Your task to perform on an android device: Clear the cart on ebay. Add macbook pro 13 inch to the cart on ebay Image 0: 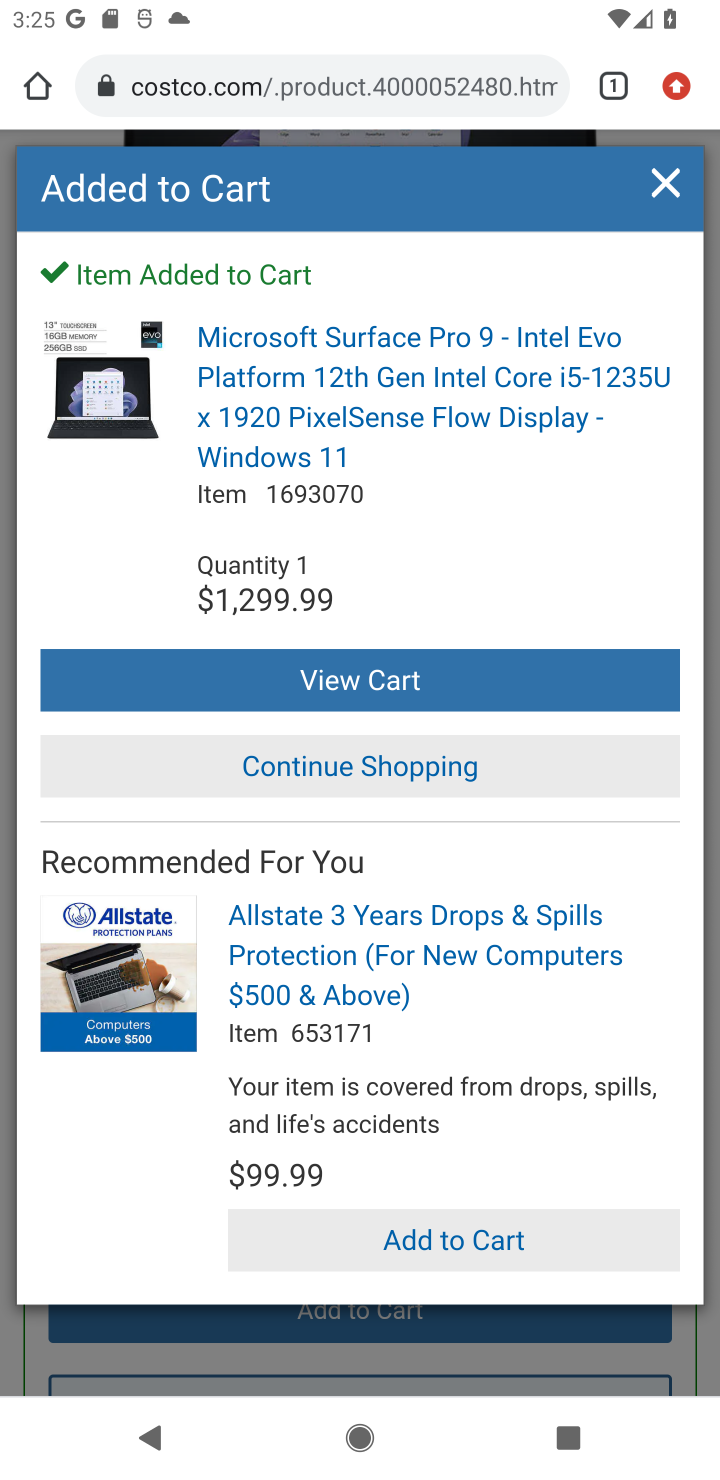
Step 0: press home button
Your task to perform on an android device: Clear the cart on ebay. Add macbook pro 13 inch to the cart on ebay Image 1: 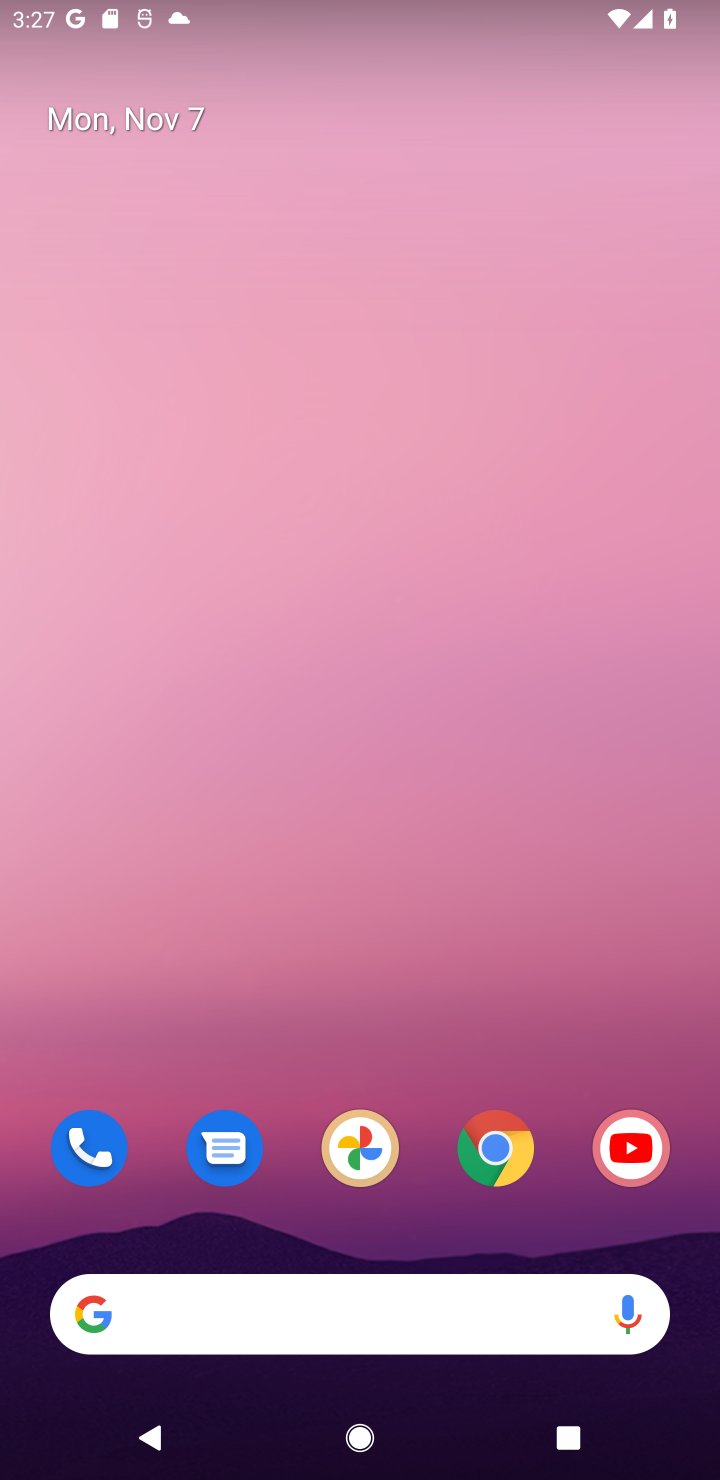
Step 1: drag from (372, 392) to (366, 216)
Your task to perform on an android device: Clear the cart on ebay. Add macbook pro 13 inch to the cart on ebay Image 2: 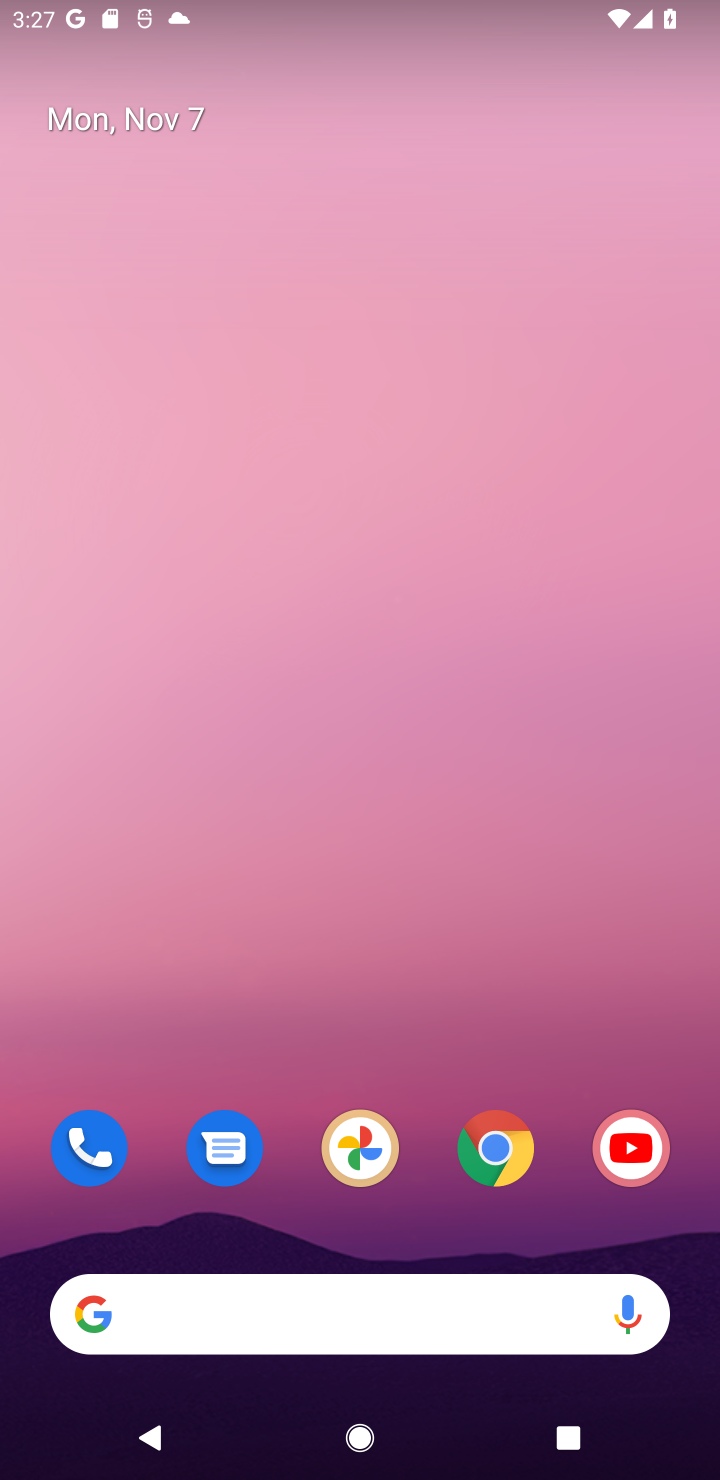
Step 2: drag from (442, 1206) to (364, 422)
Your task to perform on an android device: Clear the cart on ebay. Add macbook pro 13 inch to the cart on ebay Image 3: 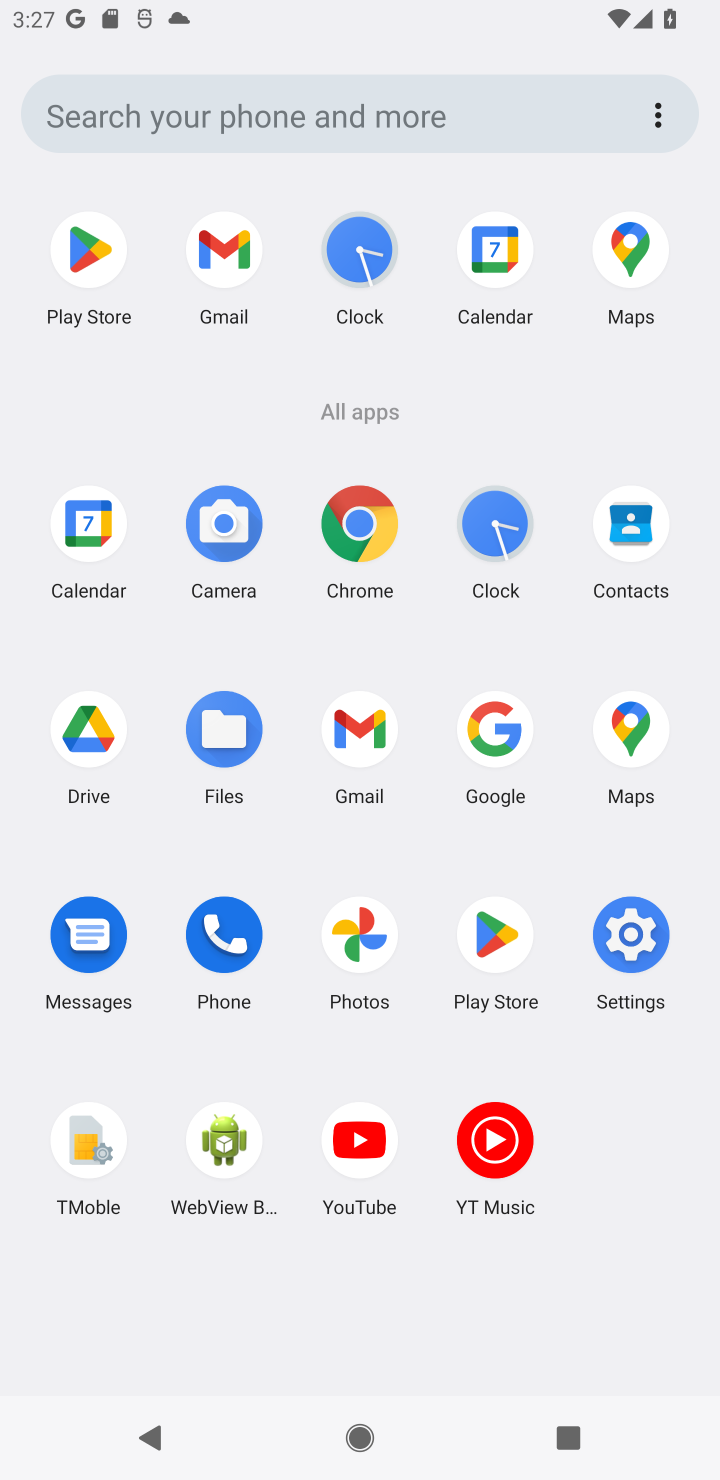
Step 3: click (382, 530)
Your task to perform on an android device: Clear the cart on ebay. Add macbook pro 13 inch to the cart on ebay Image 4: 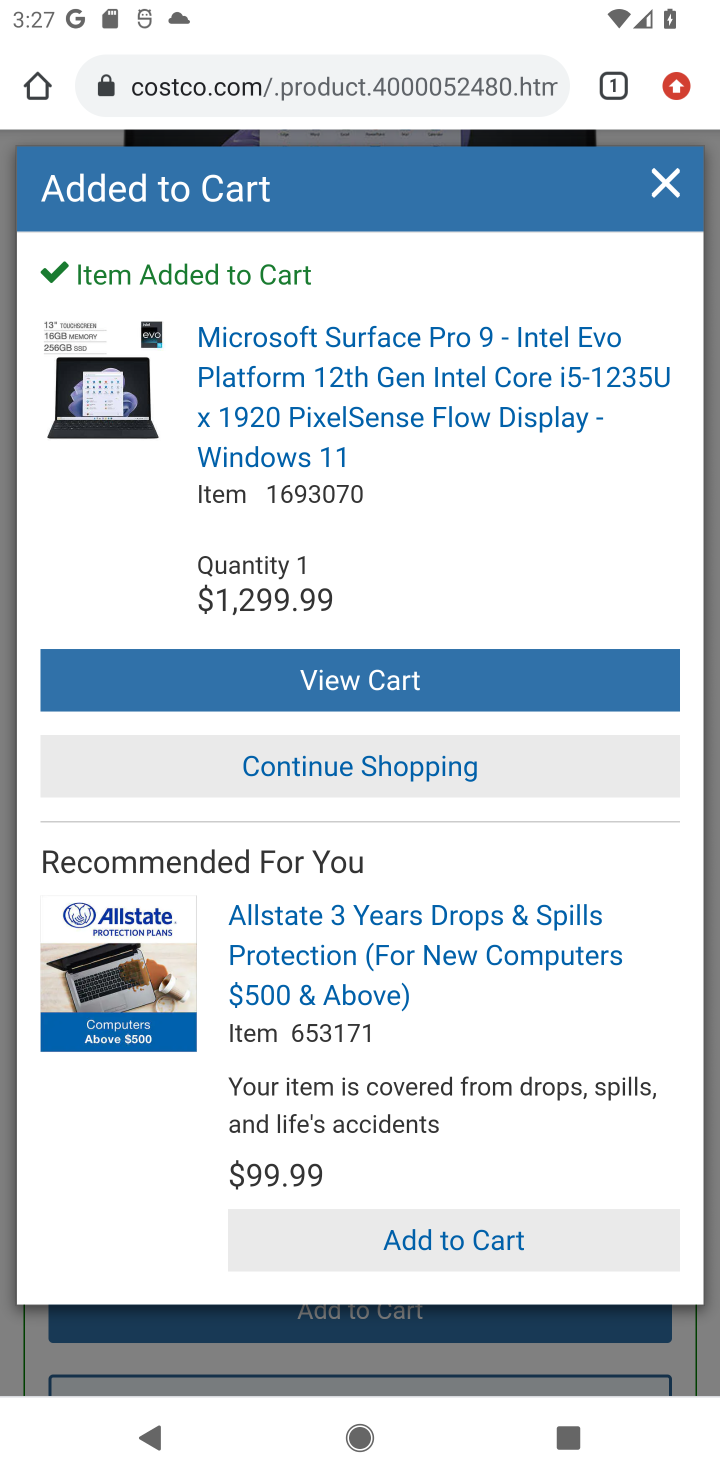
Step 4: click (334, 88)
Your task to perform on an android device: Clear the cart on ebay. Add macbook pro 13 inch to the cart on ebay Image 5: 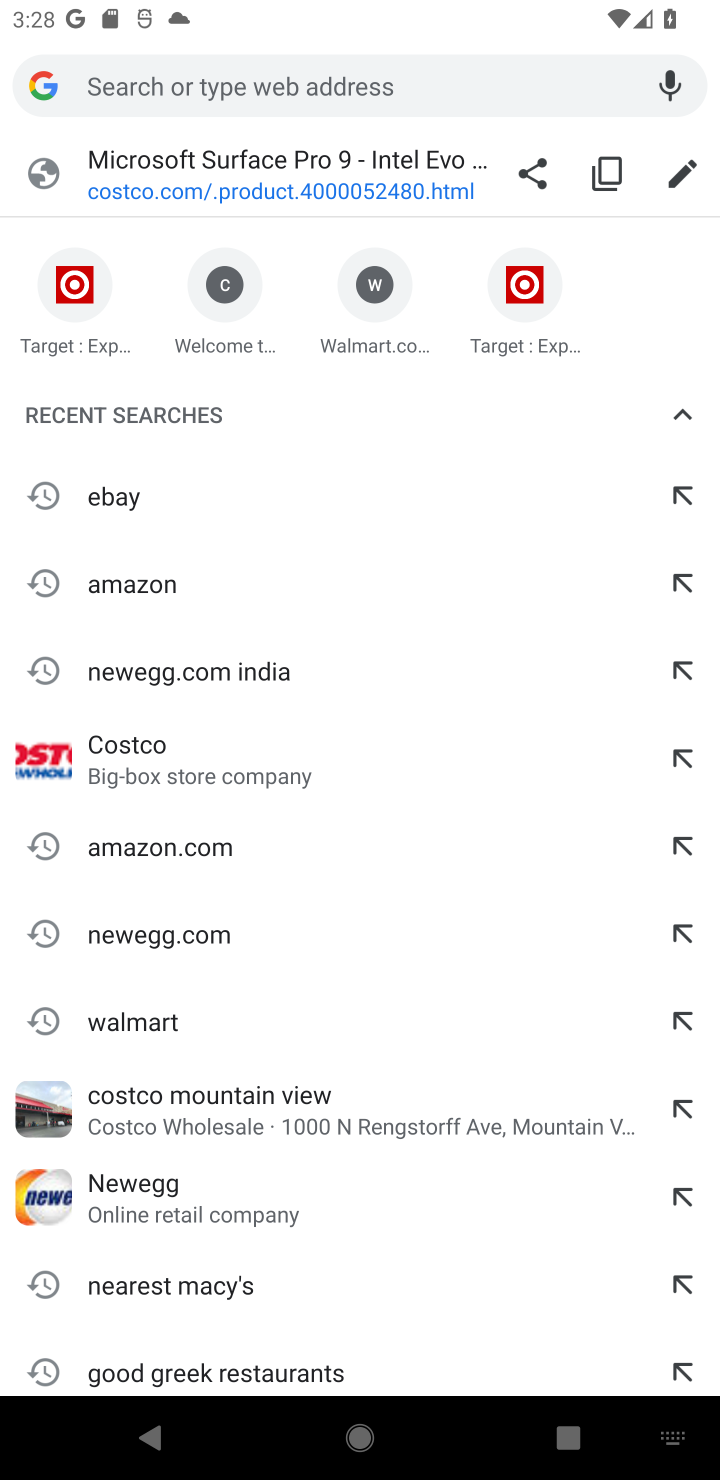
Step 5: type "ebay"
Your task to perform on an android device: Clear the cart on ebay. Add macbook pro 13 inch to the cart on ebay Image 6: 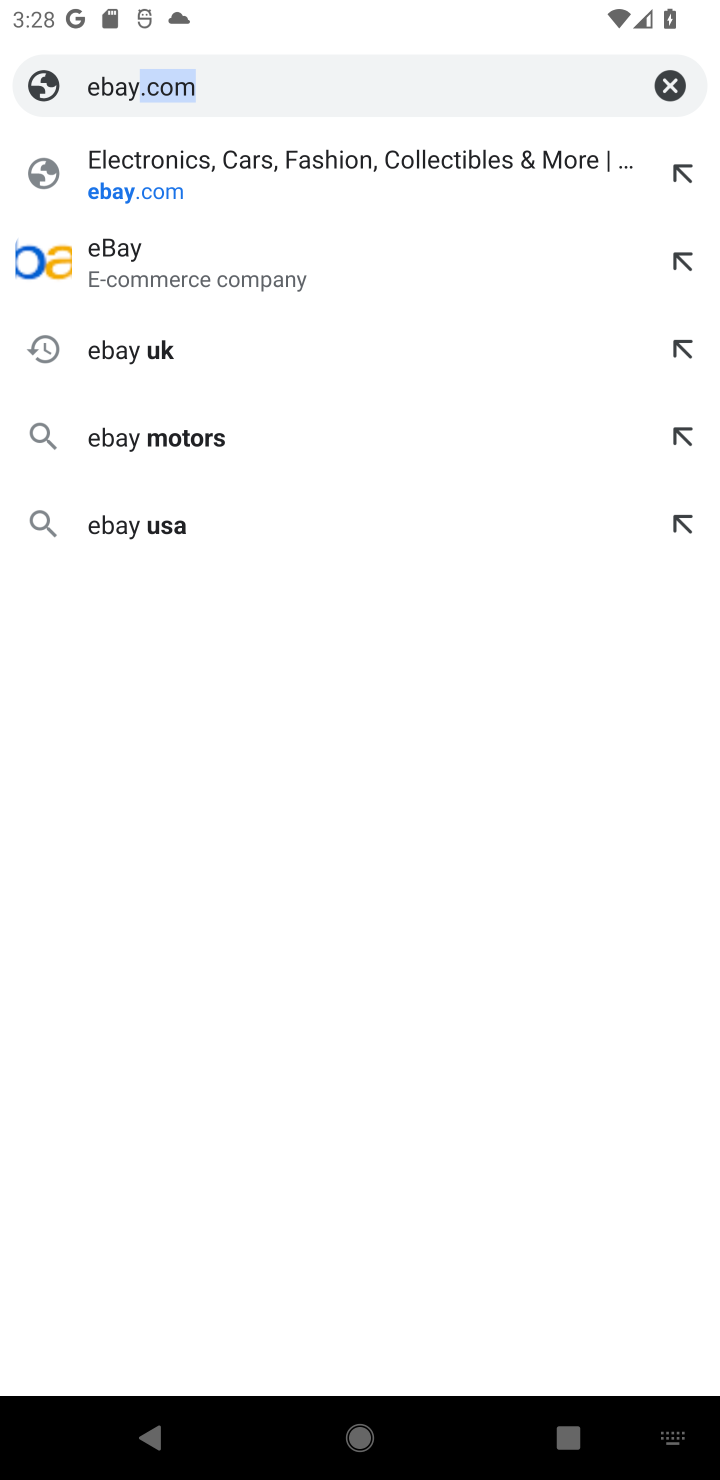
Step 6: press enter
Your task to perform on an android device: Clear the cart on ebay. Add macbook pro 13 inch to the cart on ebay Image 7: 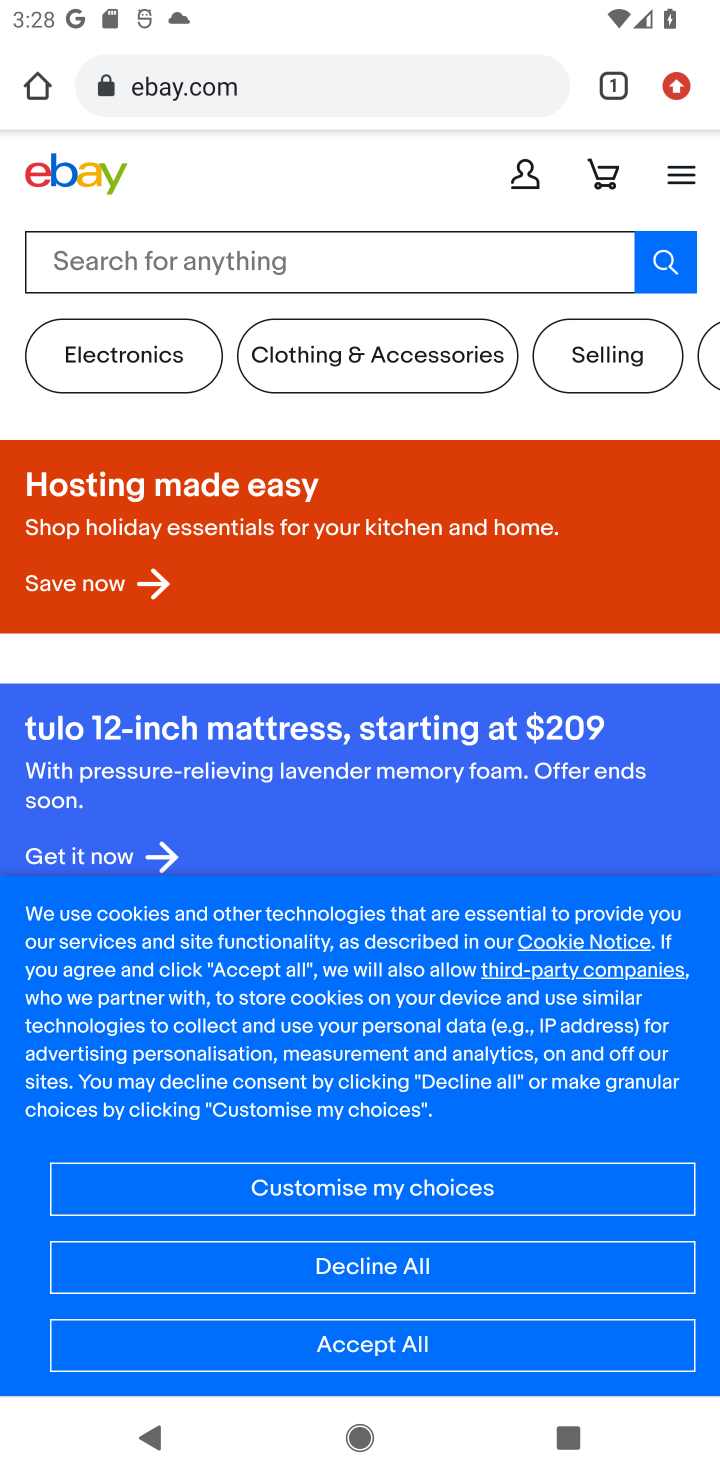
Step 7: click (221, 289)
Your task to perform on an android device: Clear the cart on ebay. Add macbook pro 13 inch to the cart on ebay Image 8: 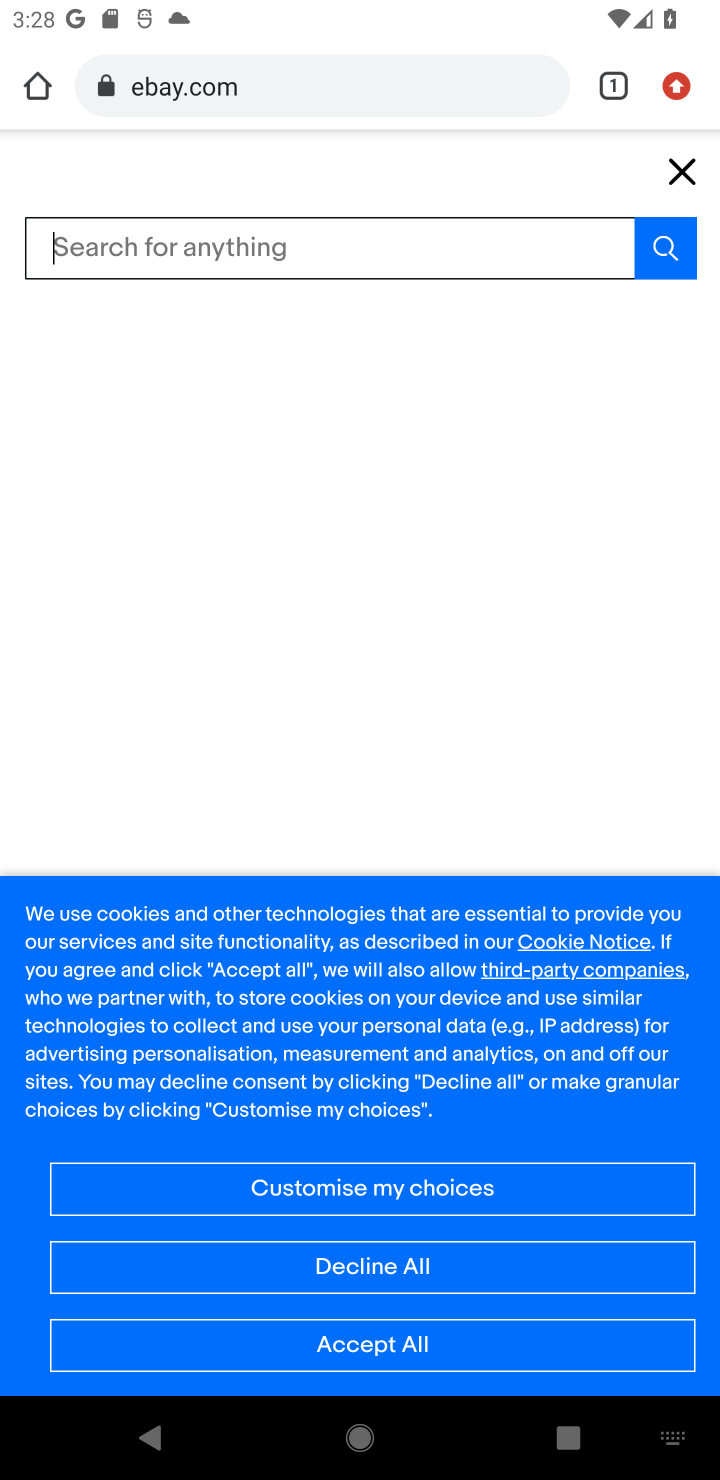
Step 8: press back button
Your task to perform on an android device: Clear the cart on ebay. Add macbook pro 13 inch to the cart on ebay Image 9: 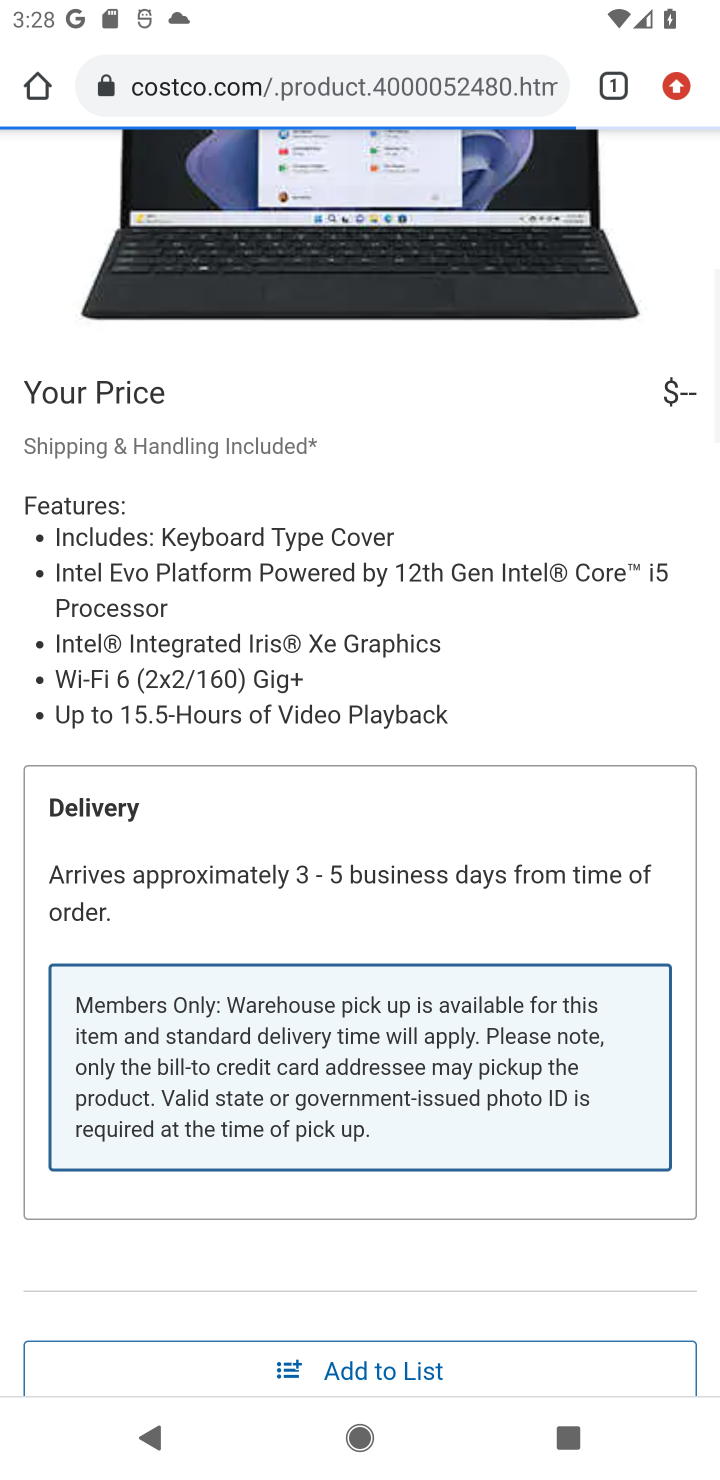
Step 9: click (673, 178)
Your task to perform on an android device: Clear the cart on ebay. Add macbook pro 13 inch to the cart on ebay Image 10: 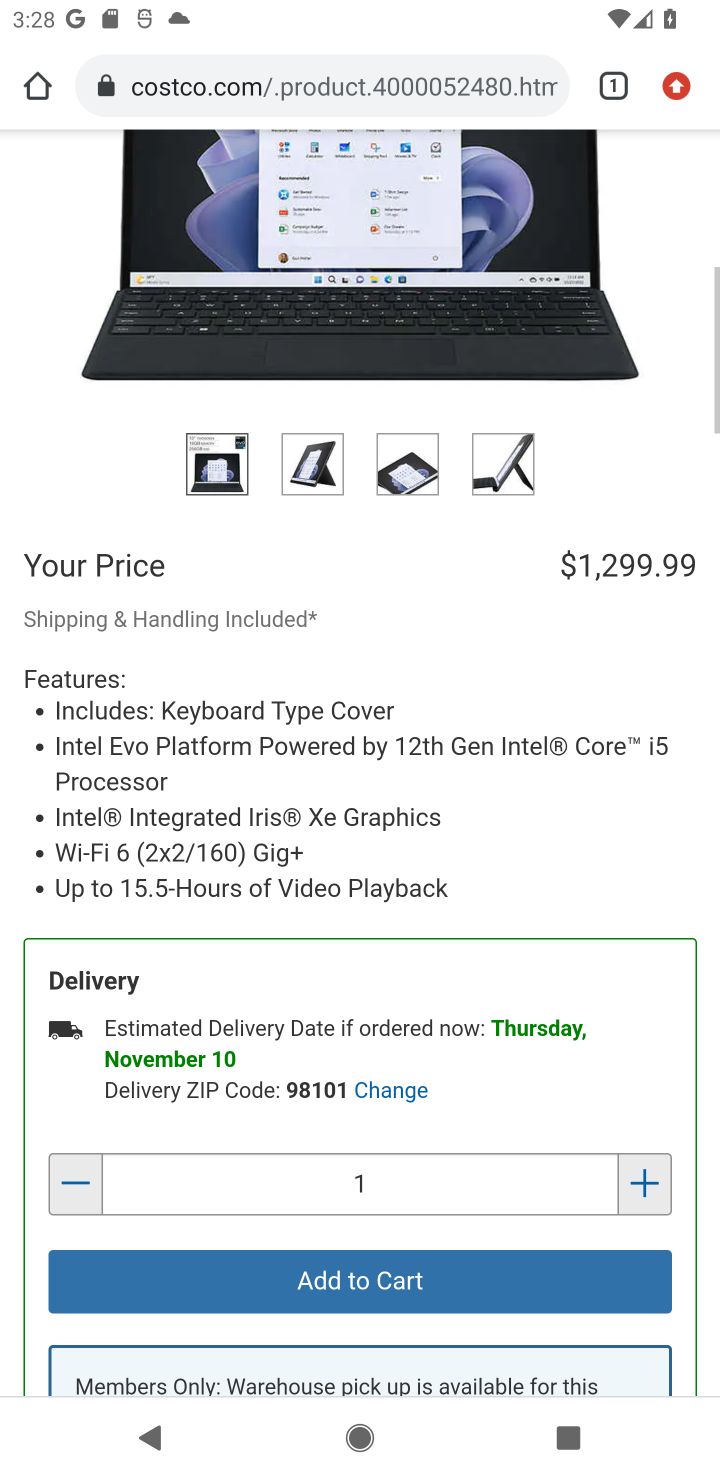
Step 10: click (463, 65)
Your task to perform on an android device: Clear the cart on ebay. Add macbook pro 13 inch to the cart on ebay Image 11: 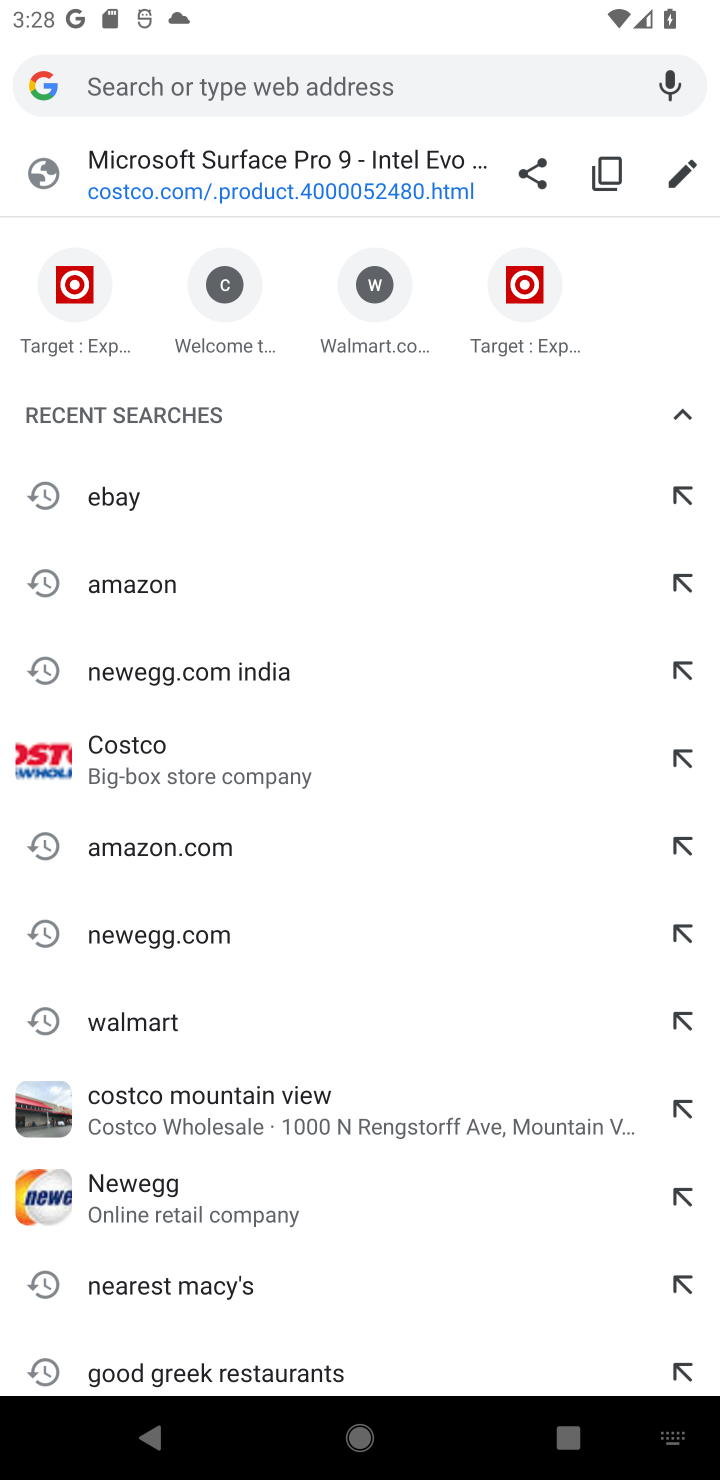
Step 11: click (120, 475)
Your task to perform on an android device: Clear the cart on ebay. Add macbook pro 13 inch to the cart on ebay Image 12: 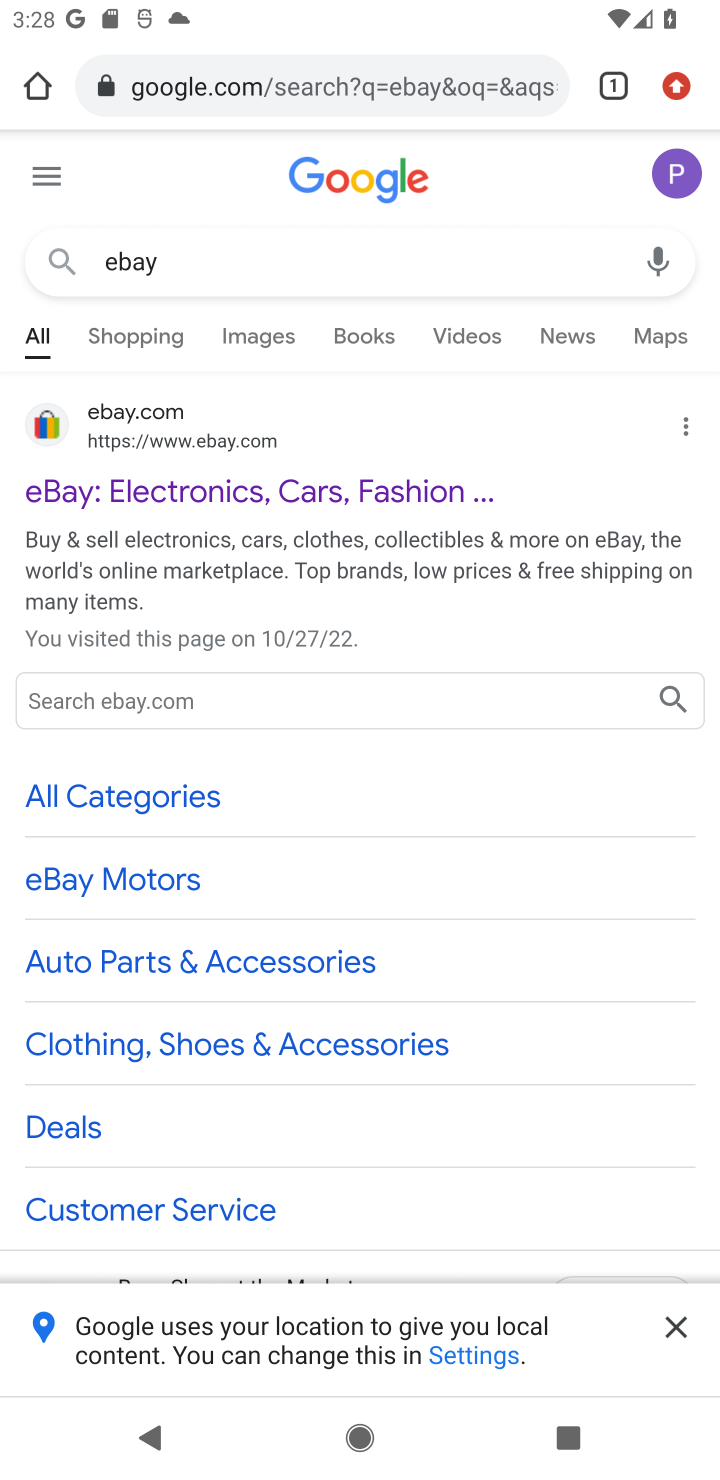
Step 12: click (135, 479)
Your task to perform on an android device: Clear the cart on ebay. Add macbook pro 13 inch to the cart on ebay Image 13: 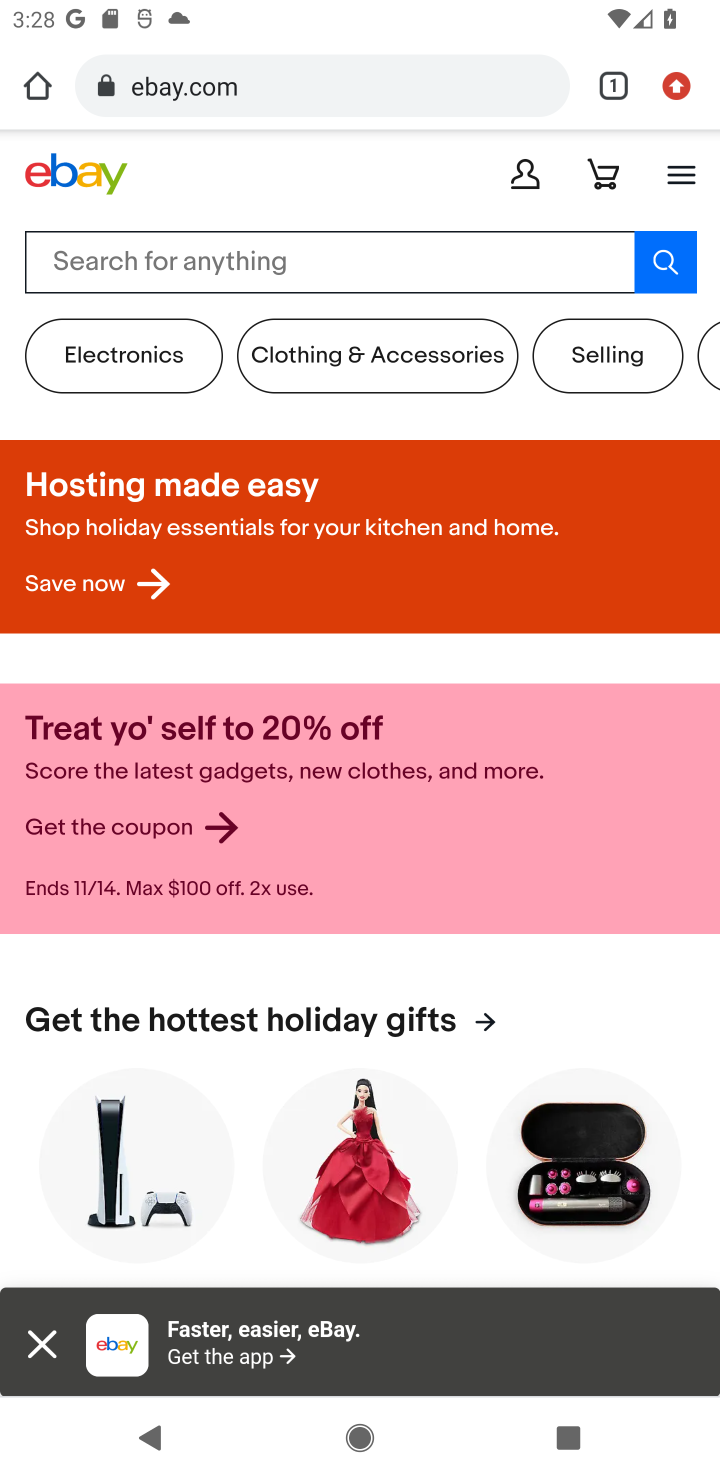
Step 13: click (607, 186)
Your task to perform on an android device: Clear the cart on ebay. Add macbook pro 13 inch to the cart on ebay Image 14: 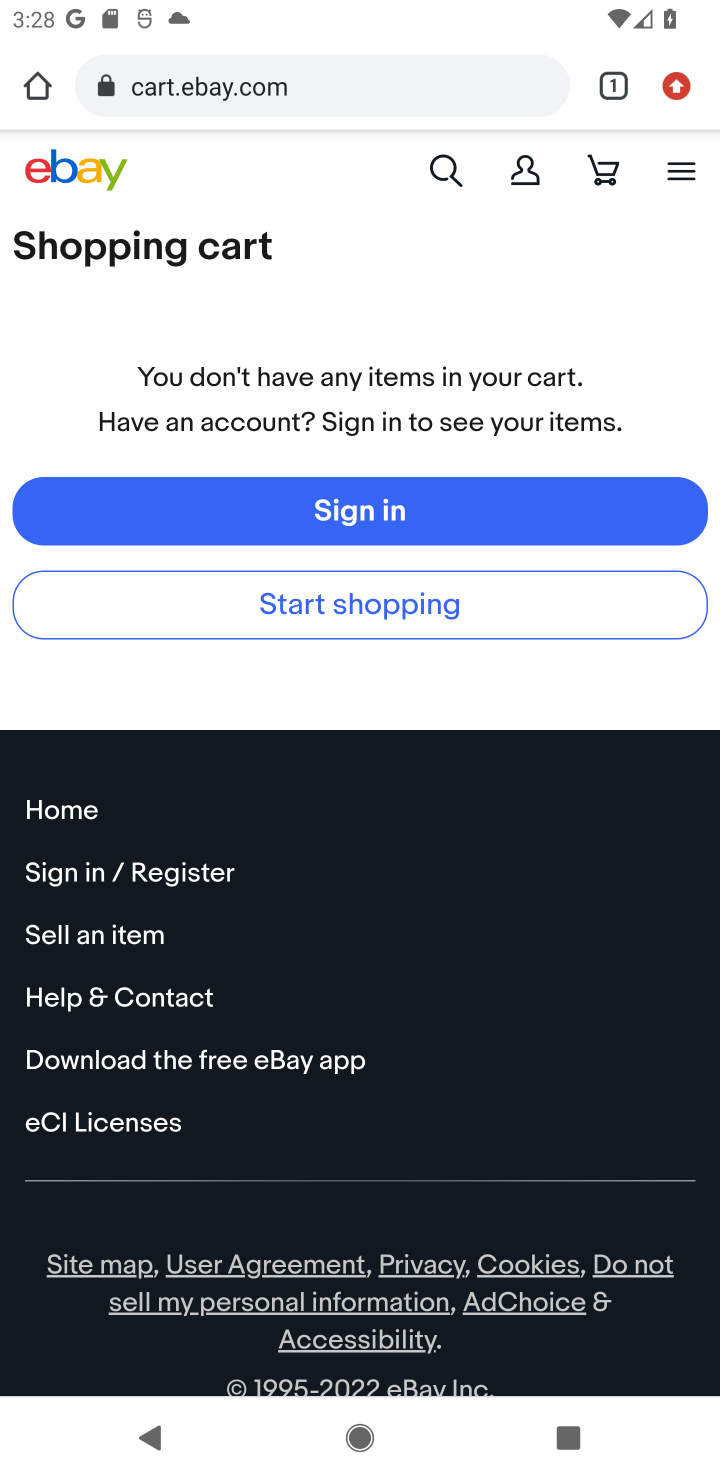
Step 14: click (436, 170)
Your task to perform on an android device: Clear the cart on ebay. Add macbook pro 13 inch to the cart on ebay Image 15: 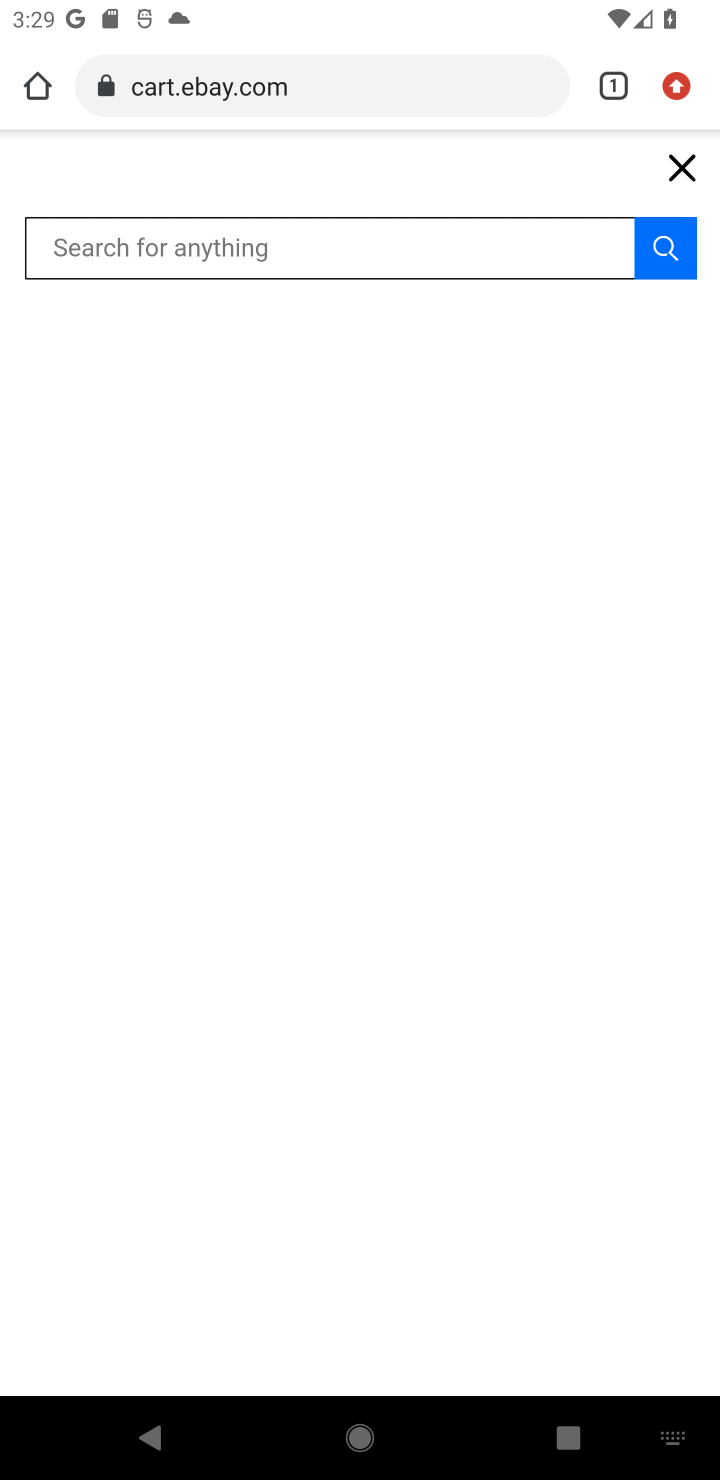
Step 15: type "macbook pro 13 inch"
Your task to perform on an android device: Clear the cart on ebay. Add macbook pro 13 inch to the cart on ebay Image 16: 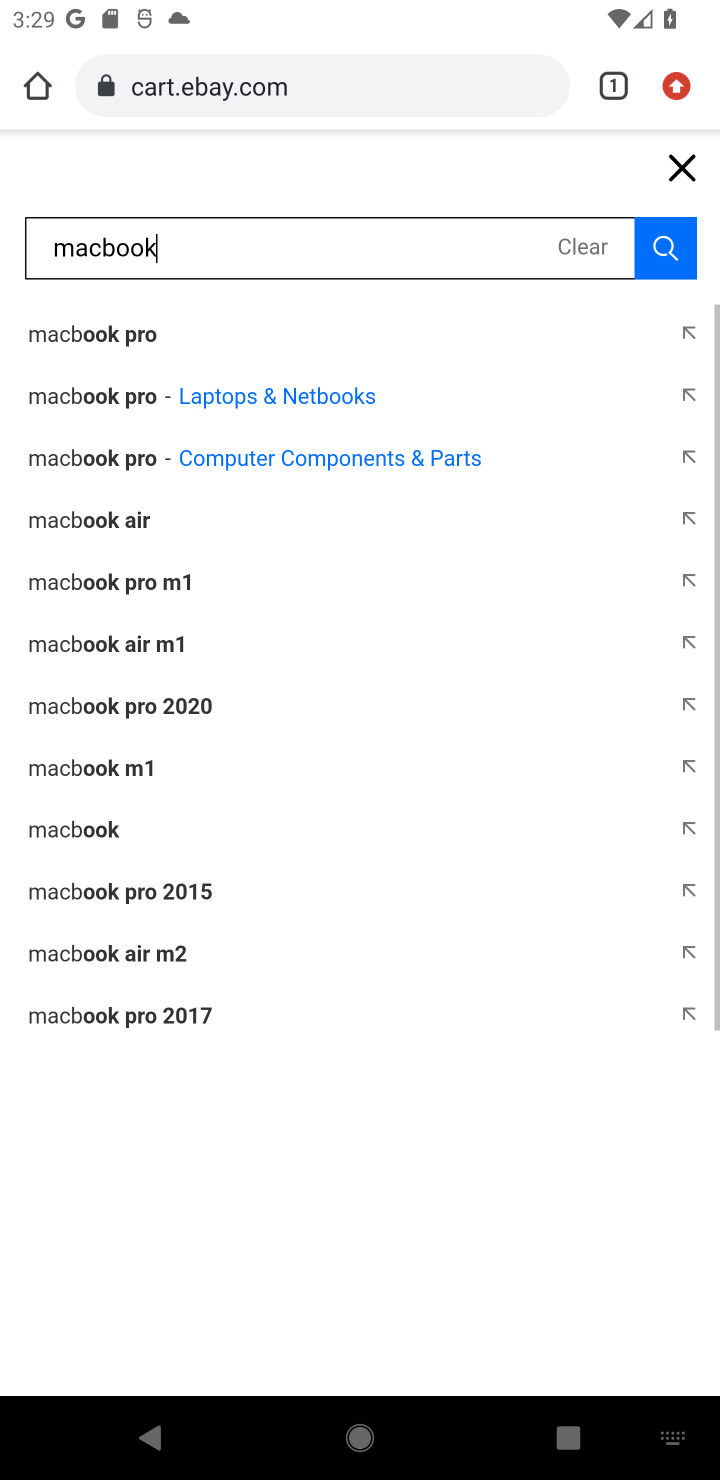
Step 16: press enter
Your task to perform on an android device: Clear the cart on ebay. Add macbook pro 13 inch to the cart on ebay Image 17: 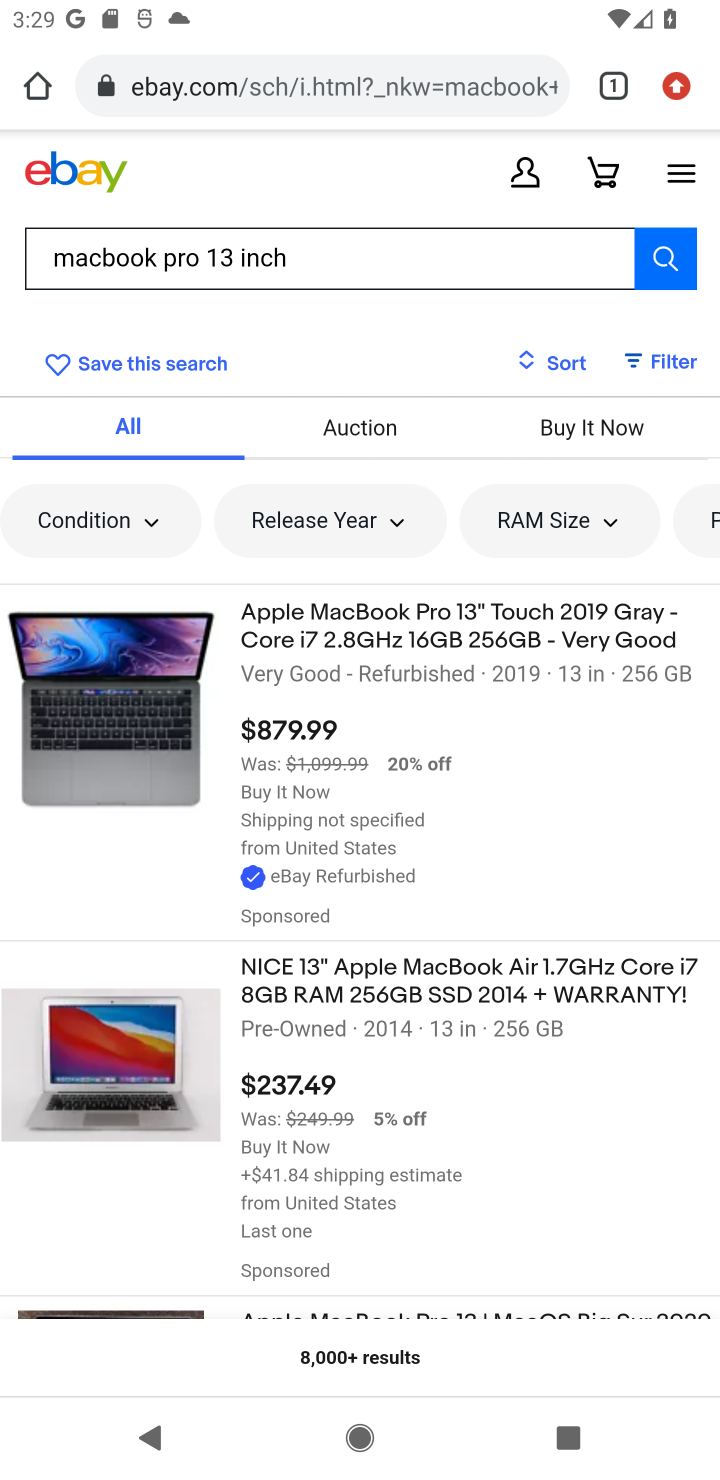
Step 17: click (144, 714)
Your task to perform on an android device: Clear the cart on ebay. Add macbook pro 13 inch to the cart on ebay Image 18: 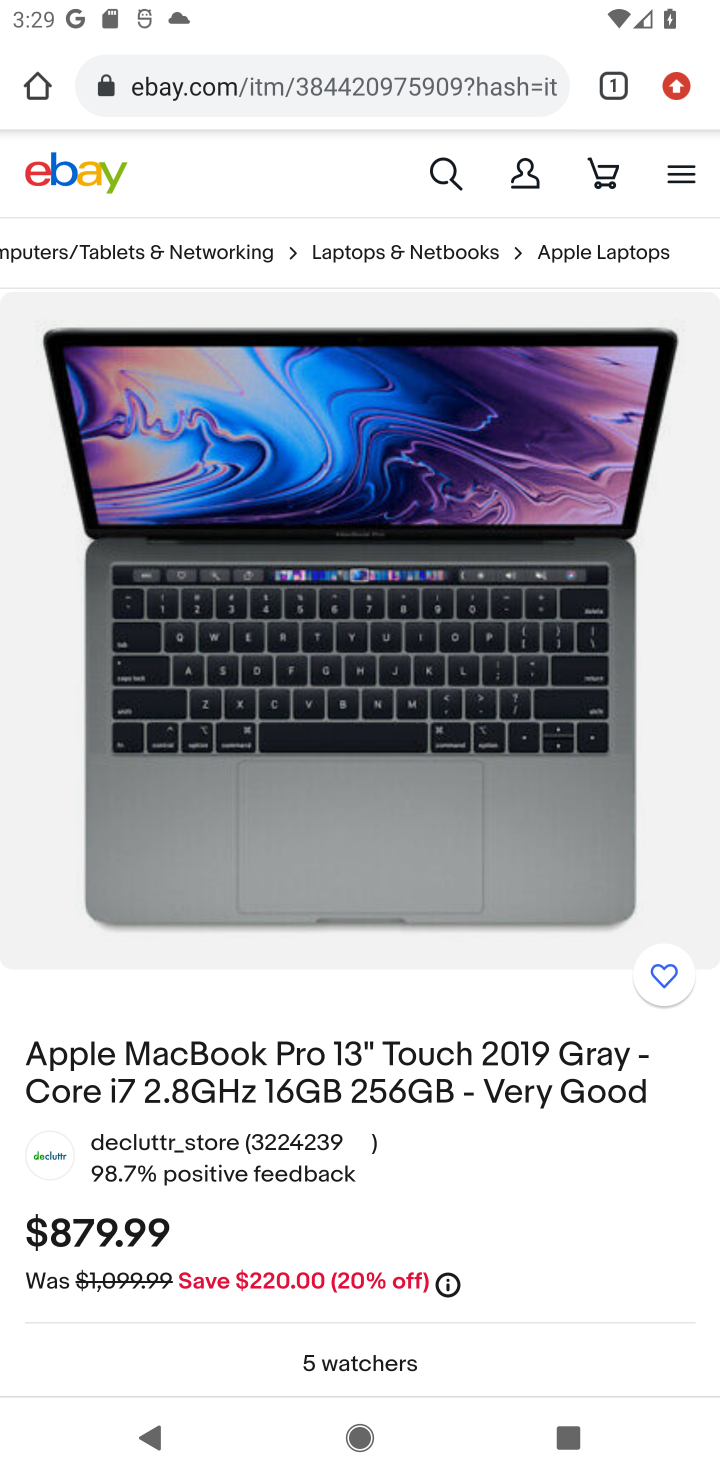
Step 18: drag from (294, 1108) to (377, 618)
Your task to perform on an android device: Clear the cart on ebay. Add macbook pro 13 inch to the cart on ebay Image 19: 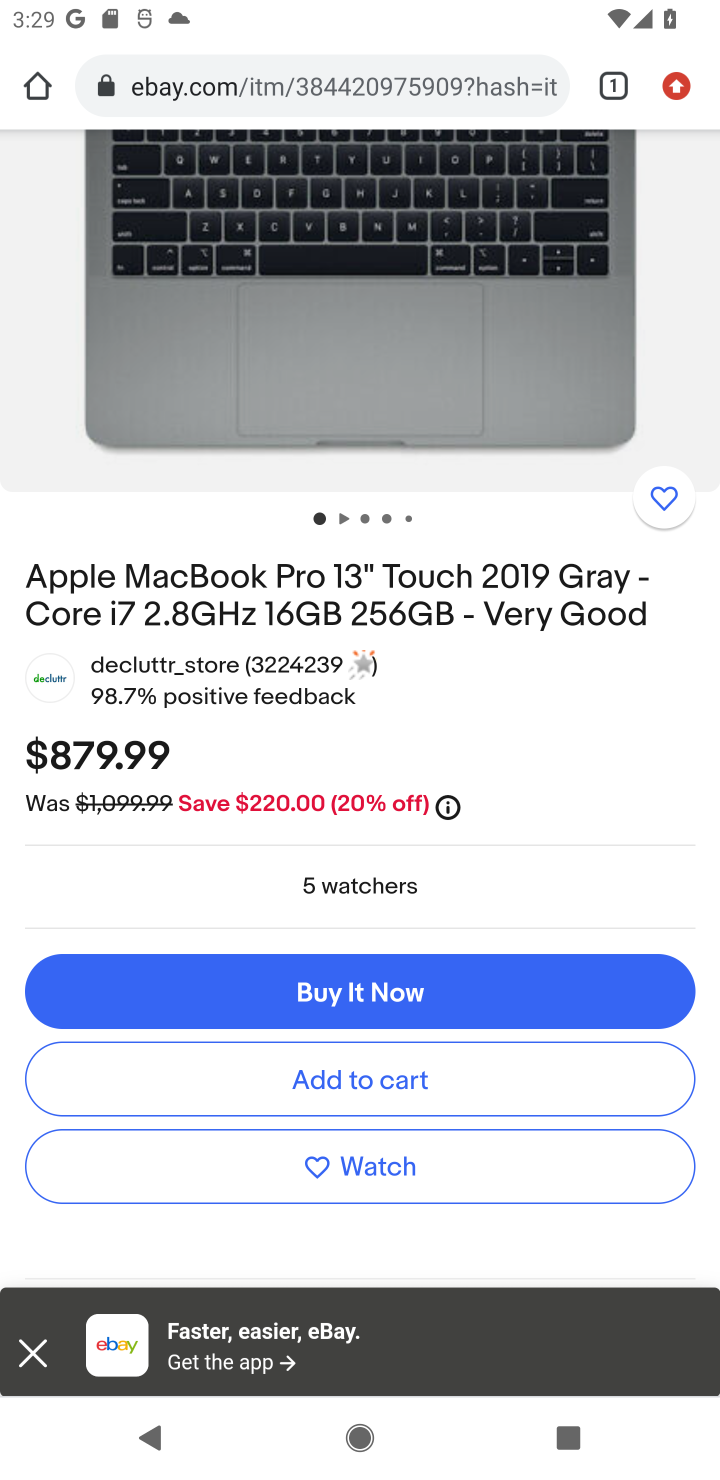
Step 19: click (401, 1067)
Your task to perform on an android device: Clear the cart on ebay. Add macbook pro 13 inch to the cart on ebay Image 20: 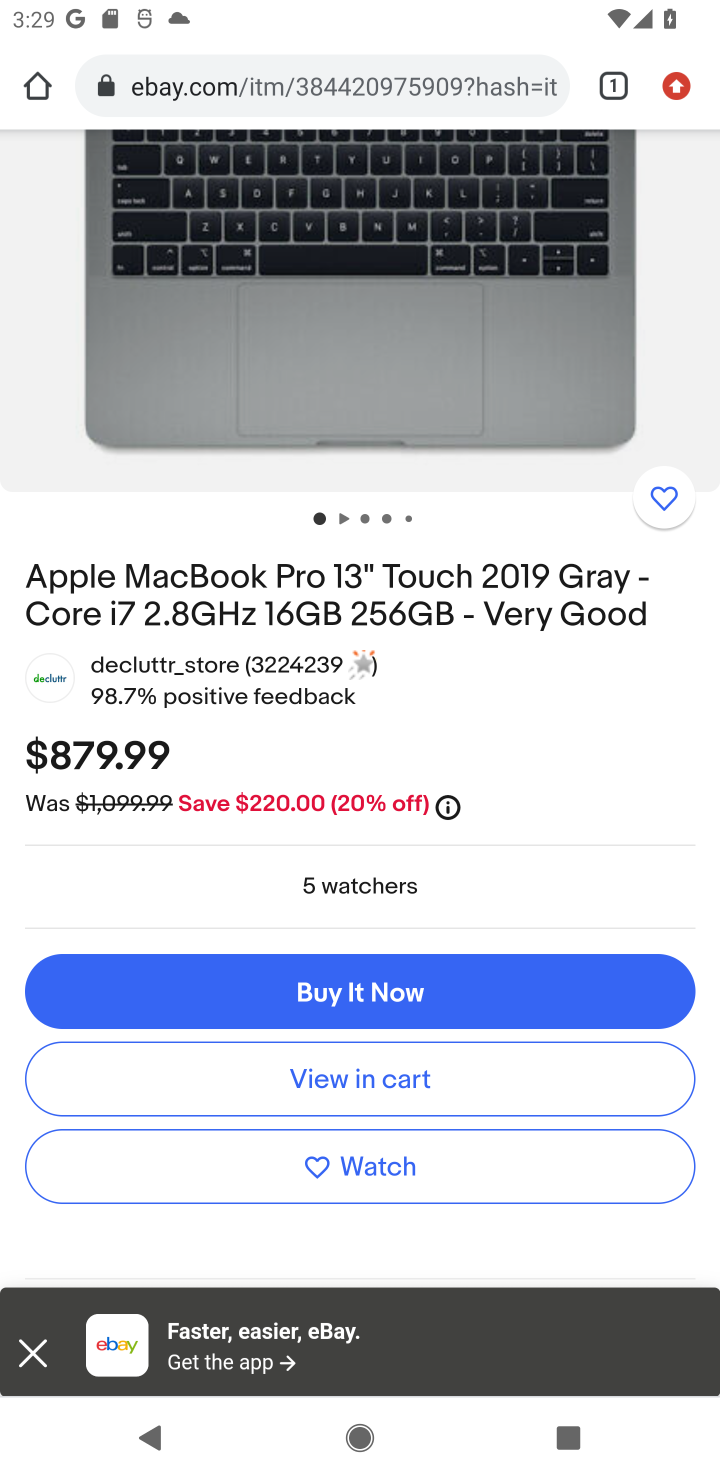
Step 20: task complete